Your task to perform on an android device: Go to eBay Image 0: 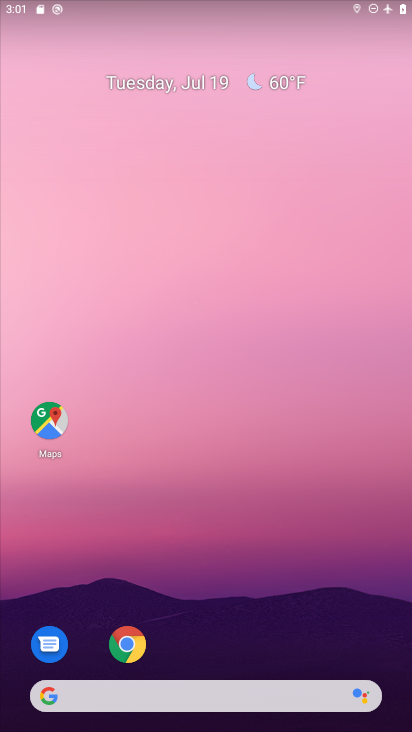
Step 0: drag from (197, 663) to (166, 268)
Your task to perform on an android device: Go to eBay Image 1: 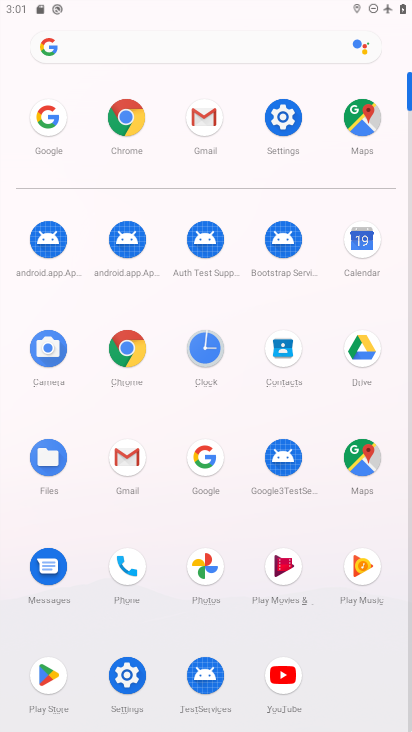
Step 1: click (130, 361)
Your task to perform on an android device: Go to eBay Image 2: 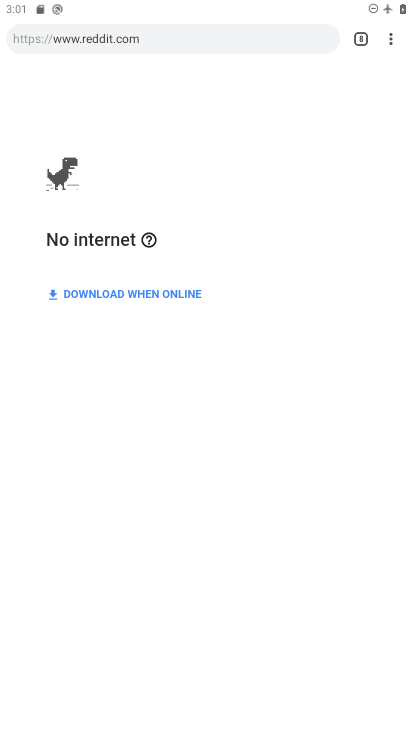
Step 2: task complete